Your task to perform on an android device: Go to calendar. Show me events next week Image 0: 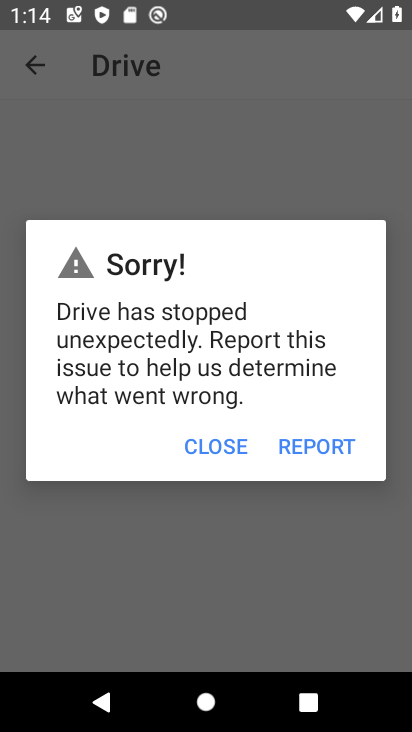
Step 0: press home button
Your task to perform on an android device: Go to calendar. Show me events next week Image 1: 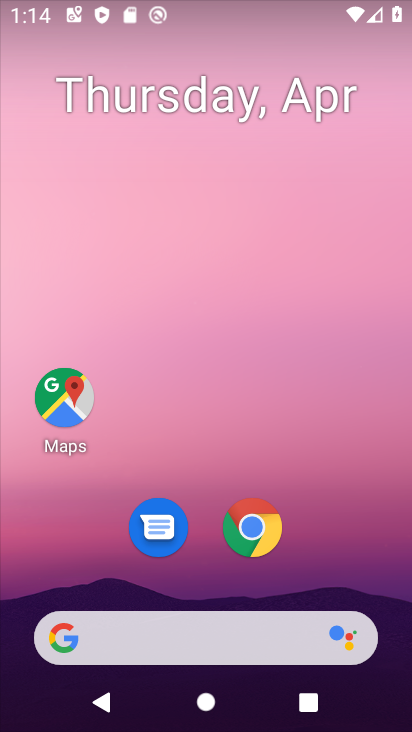
Step 1: drag from (361, 569) to (321, 20)
Your task to perform on an android device: Go to calendar. Show me events next week Image 2: 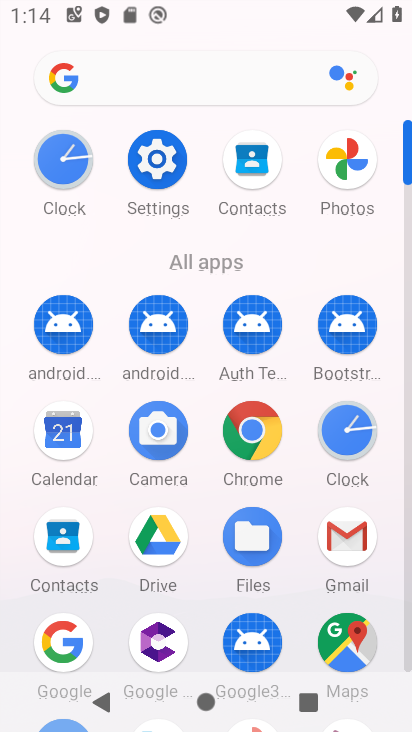
Step 2: click (56, 429)
Your task to perform on an android device: Go to calendar. Show me events next week Image 3: 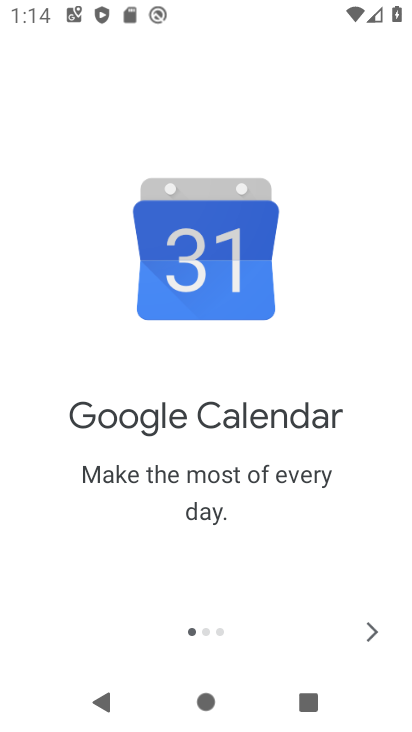
Step 3: click (368, 626)
Your task to perform on an android device: Go to calendar. Show me events next week Image 4: 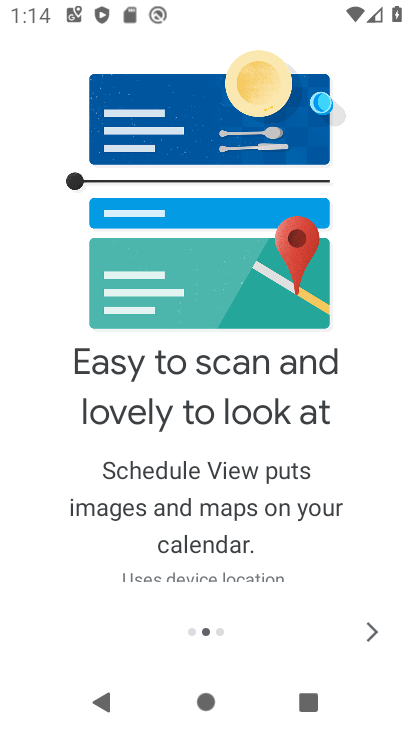
Step 4: click (368, 626)
Your task to perform on an android device: Go to calendar. Show me events next week Image 5: 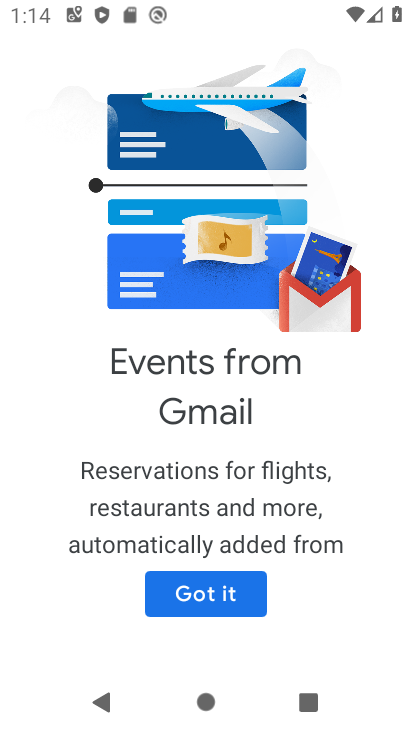
Step 5: click (193, 583)
Your task to perform on an android device: Go to calendar. Show me events next week Image 6: 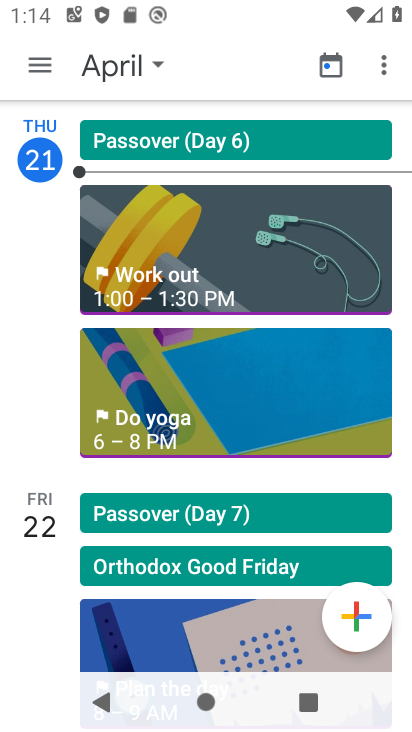
Step 6: click (36, 61)
Your task to perform on an android device: Go to calendar. Show me events next week Image 7: 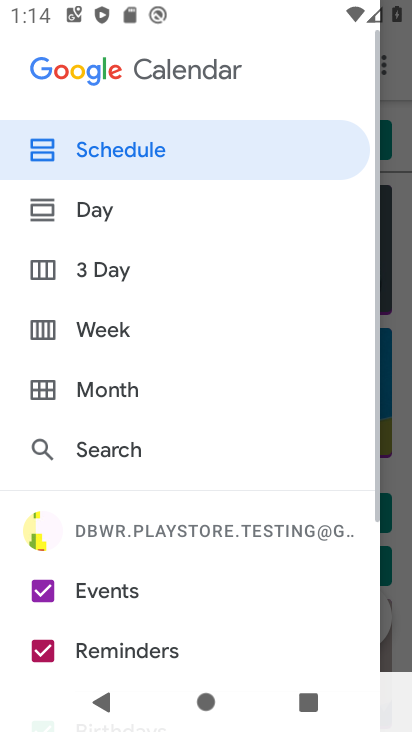
Step 7: click (95, 327)
Your task to perform on an android device: Go to calendar. Show me events next week Image 8: 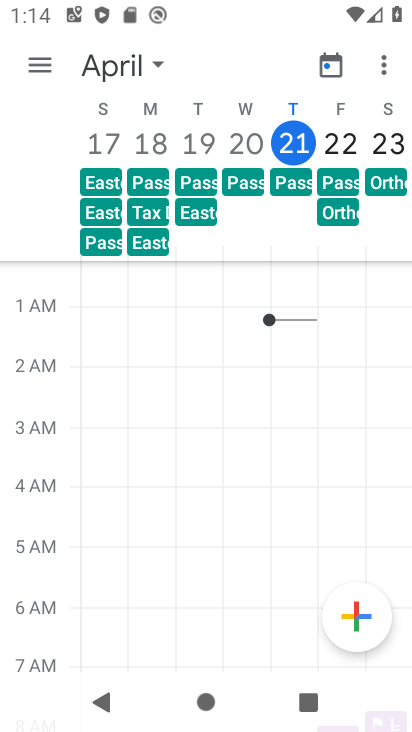
Step 8: click (153, 63)
Your task to perform on an android device: Go to calendar. Show me events next week Image 9: 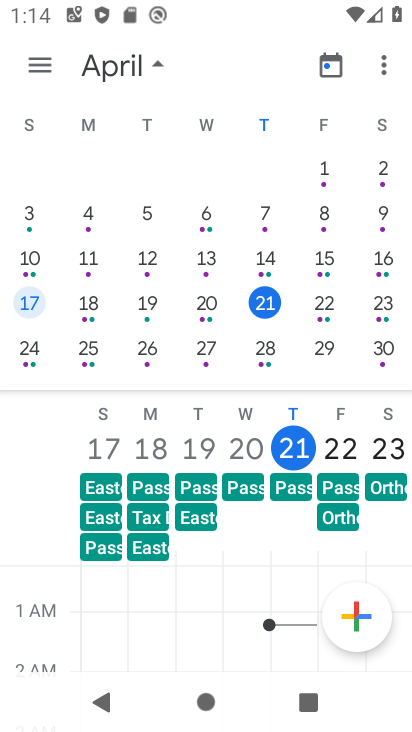
Step 9: click (18, 352)
Your task to perform on an android device: Go to calendar. Show me events next week Image 10: 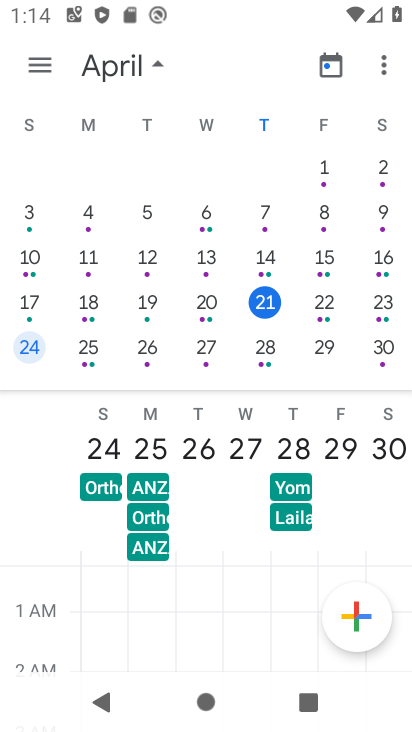
Step 10: task complete